Your task to perform on an android device: toggle pop-ups in chrome Image 0: 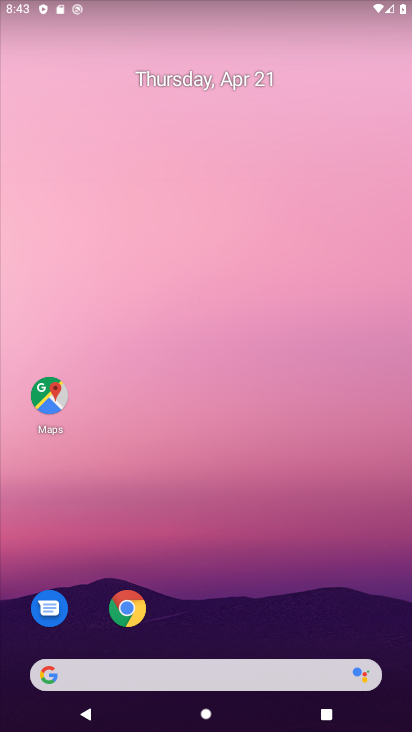
Step 0: drag from (212, 600) to (184, 263)
Your task to perform on an android device: toggle pop-ups in chrome Image 1: 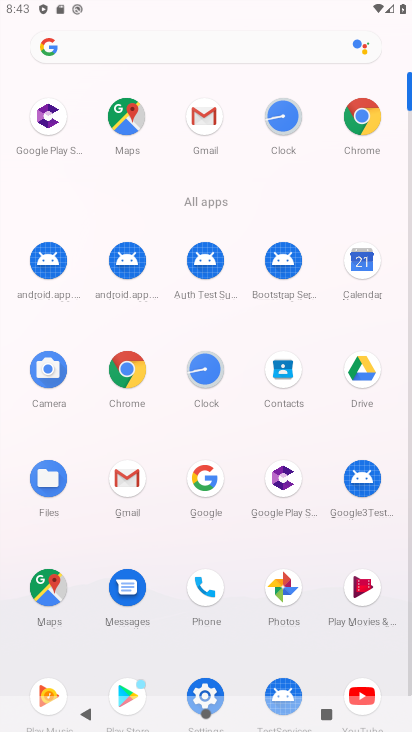
Step 1: click (134, 368)
Your task to perform on an android device: toggle pop-ups in chrome Image 2: 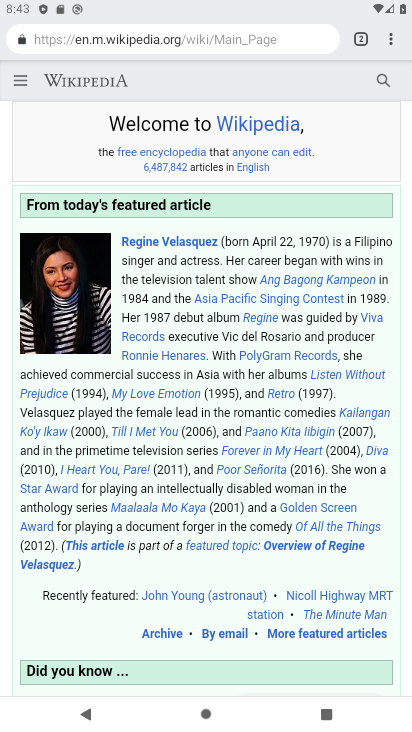
Step 2: press home button
Your task to perform on an android device: toggle pop-ups in chrome Image 3: 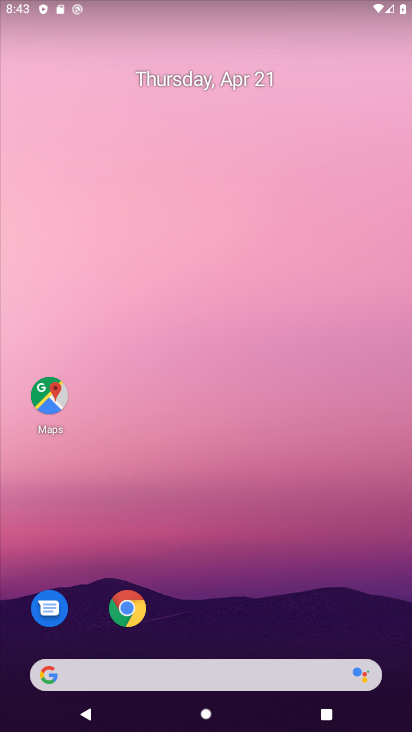
Step 3: click (134, 608)
Your task to perform on an android device: toggle pop-ups in chrome Image 4: 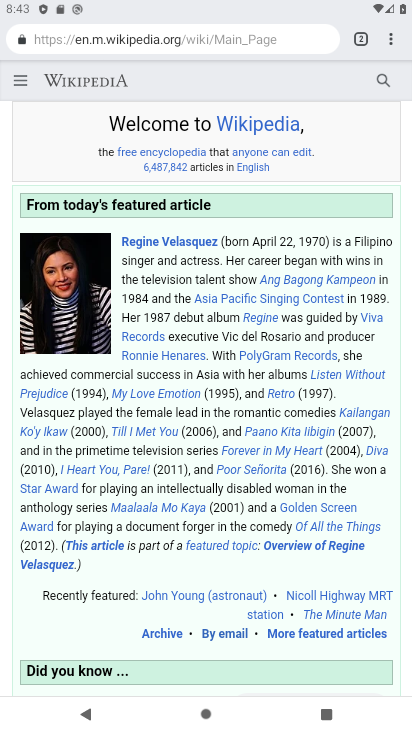
Step 4: click (391, 37)
Your task to perform on an android device: toggle pop-ups in chrome Image 5: 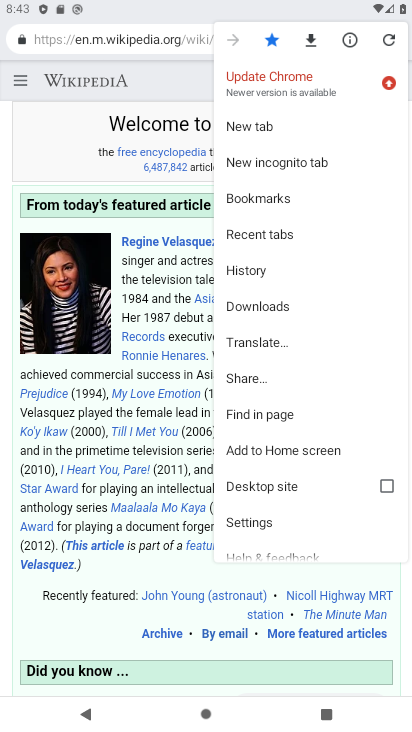
Step 5: drag from (304, 544) to (257, 279)
Your task to perform on an android device: toggle pop-ups in chrome Image 6: 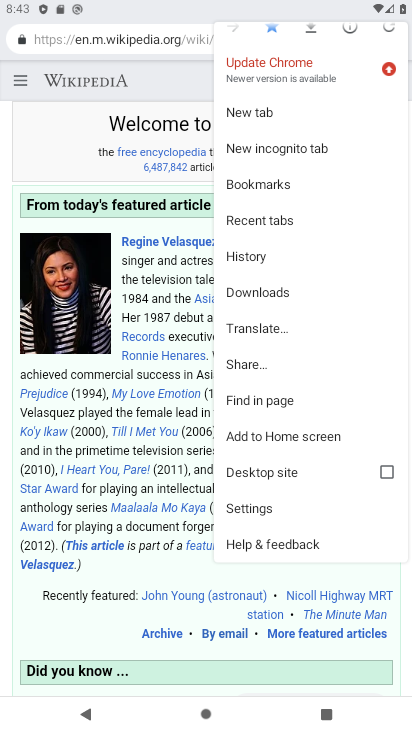
Step 6: click (249, 509)
Your task to perform on an android device: toggle pop-ups in chrome Image 7: 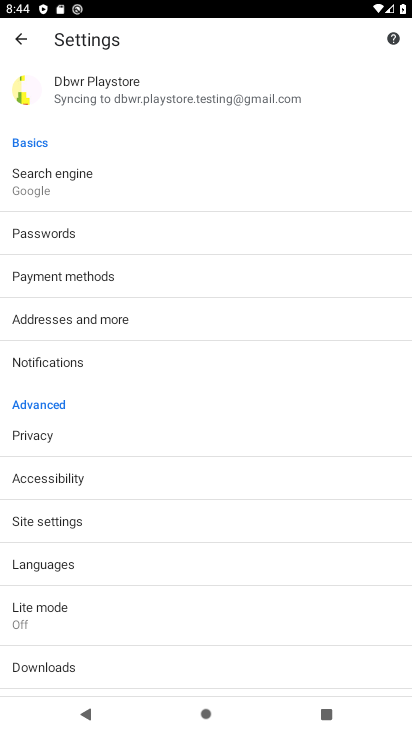
Step 7: click (139, 513)
Your task to perform on an android device: toggle pop-ups in chrome Image 8: 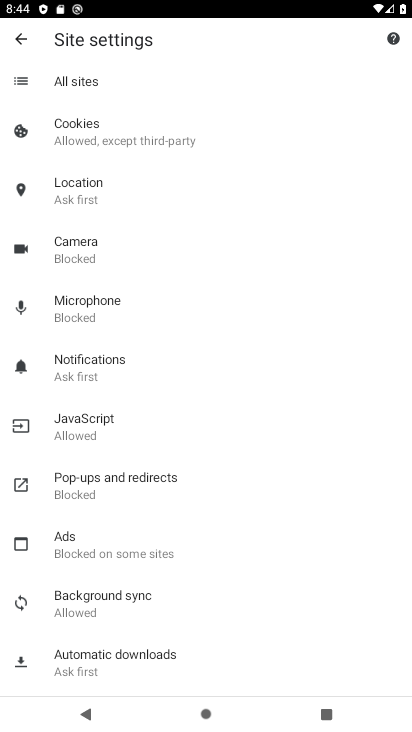
Step 8: click (170, 487)
Your task to perform on an android device: toggle pop-ups in chrome Image 9: 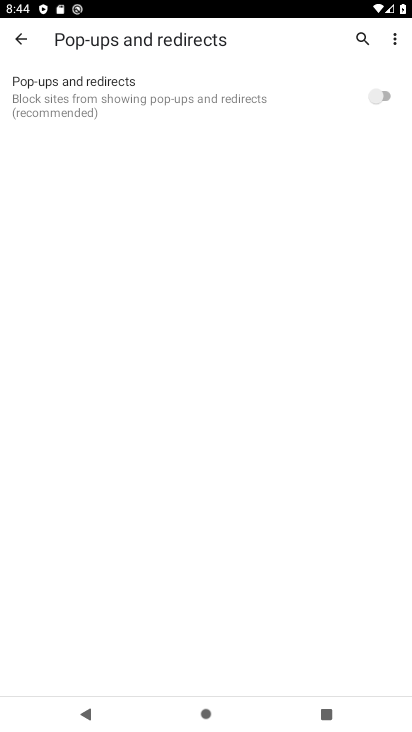
Step 9: click (381, 104)
Your task to perform on an android device: toggle pop-ups in chrome Image 10: 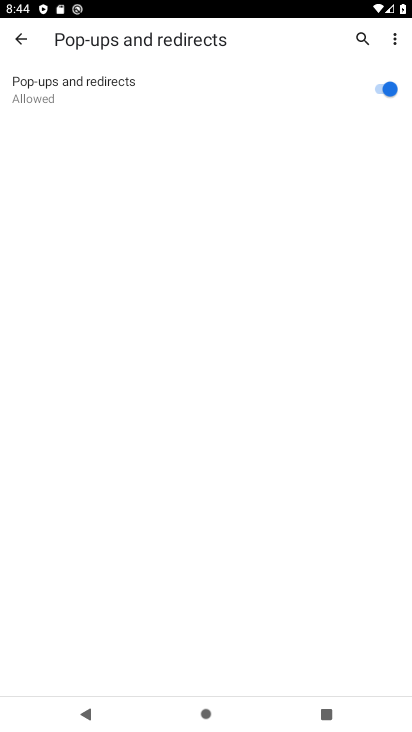
Step 10: task complete